Your task to perform on an android device: star an email in the gmail app Image 0: 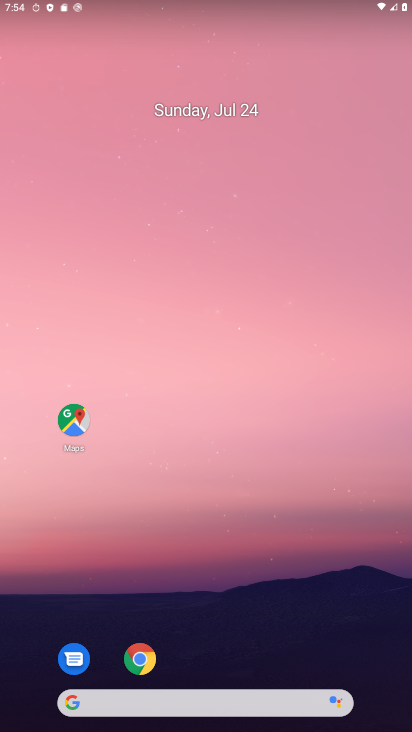
Step 0: drag from (250, 433) to (250, 110)
Your task to perform on an android device: star an email in the gmail app Image 1: 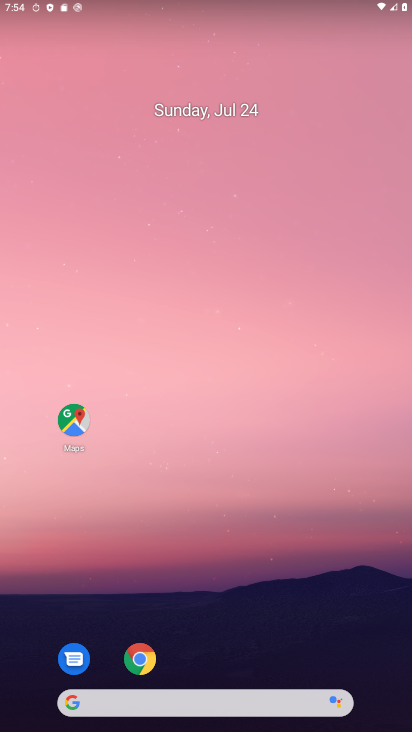
Step 1: drag from (192, 553) to (192, 45)
Your task to perform on an android device: star an email in the gmail app Image 2: 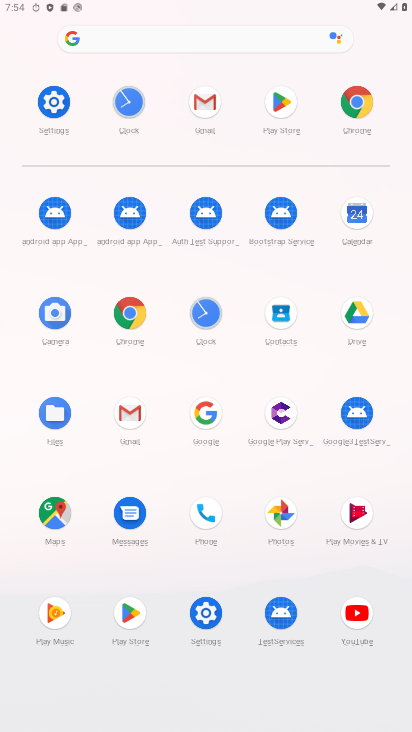
Step 2: click (128, 410)
Your task to perform on an android device: star an email in the gmail app Image 3: 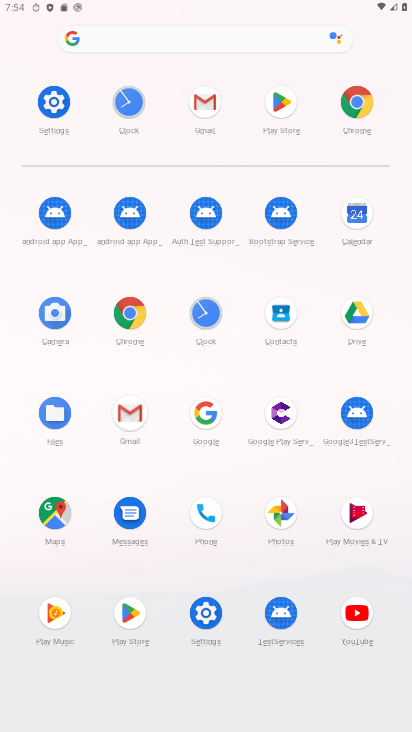
Step 3: click (128, 410)
Your task to perform on an android device: star an email in the gmail app Image 4: 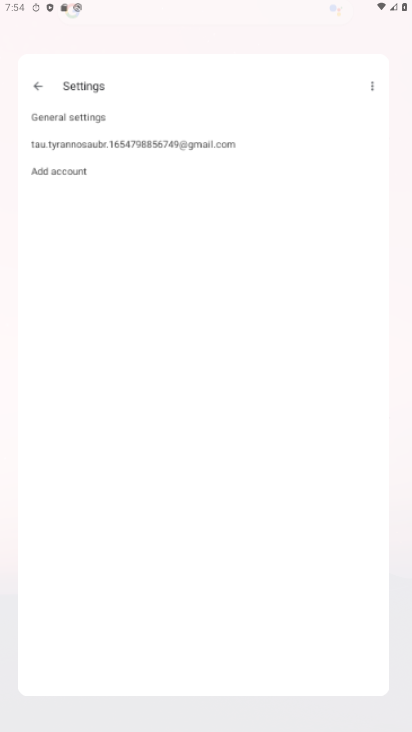
Step 4: click (128, 410)
Your task to perform on an android device: star an email in the gmail app Image 5: 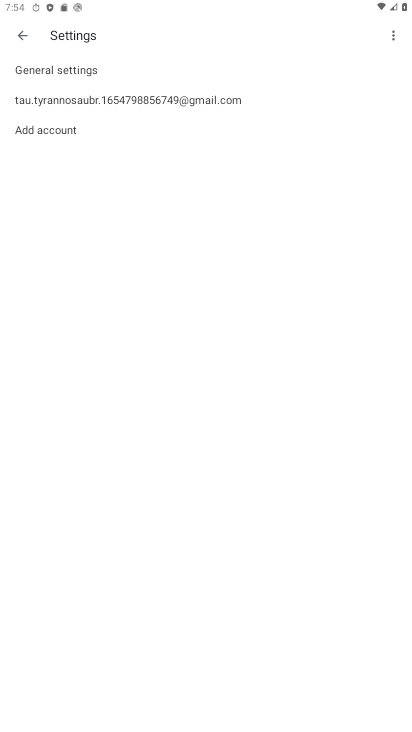
Step 5: click (75, 103)
Your task to perform on an android device: star an email in the gmail app Image 6: 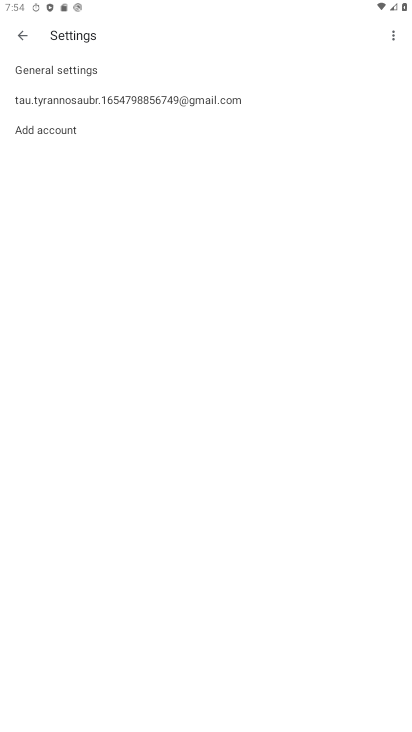
Step 6: click (22, 30)
Your task to perform on an android device: star an email in the gmail app Image 7: 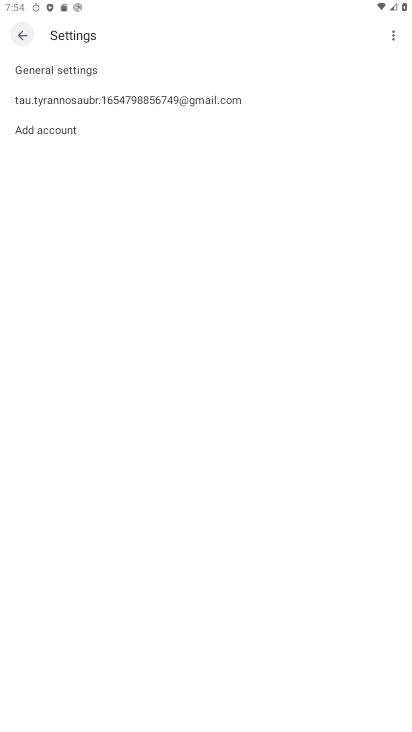
Step 7: click (22, 30)
Your task to perform on an android device: star an email in the gmail app Image 8: 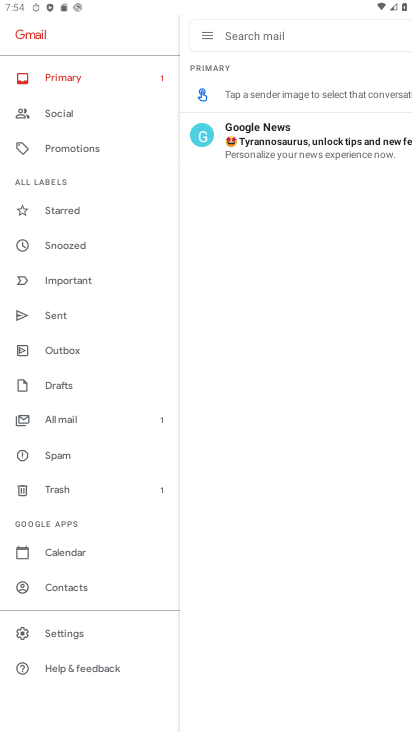
Step 8: click (297, 143)
Your task to perform on an android device: star an email in the gmail app Image 9: 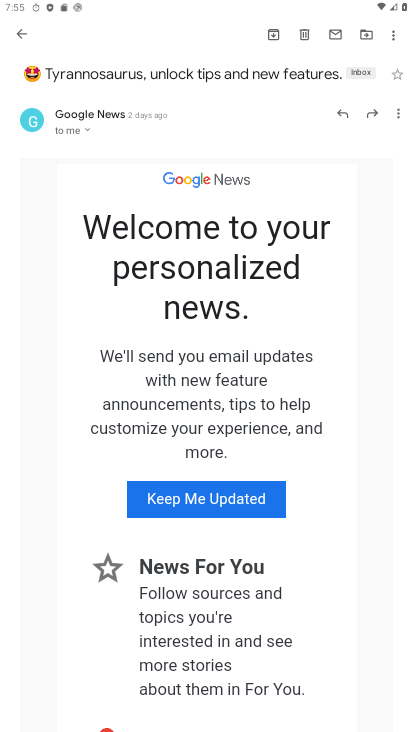
Step 9: drag from (256, 566) to (304, 121)
Your task to perform on an android device: star an email in the gmail app Image 10: 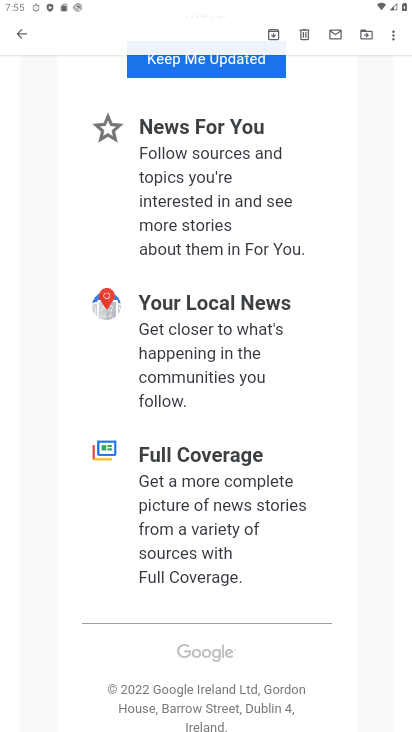
Step 10: click (110, 119)
Your task to perform on an android device: star an email in the gmail app Image 11: 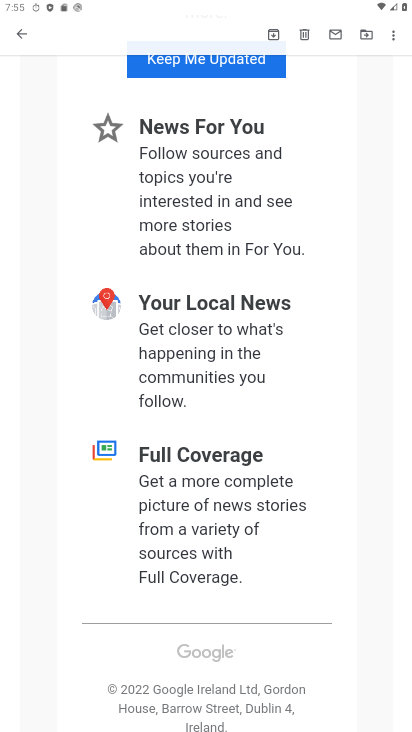
Step 11: click (111, 123)
Your task to perform on an android device: star an email in the gmail app Image 12: 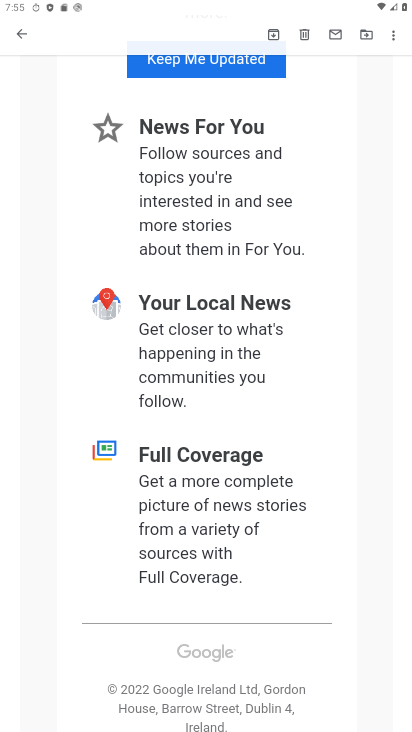
Step 12: click (111, 123)
Your task to perform on an android device: star an email in the gmail app Image 13: 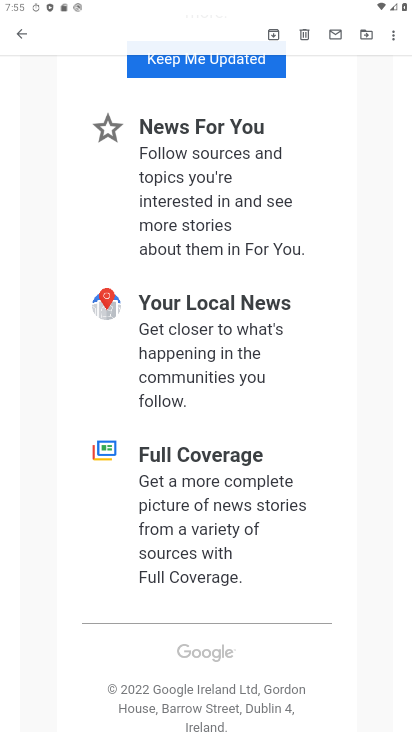
Step 13: press back button
Your task to perform on an android device: star an email in the gmail app Image 14: 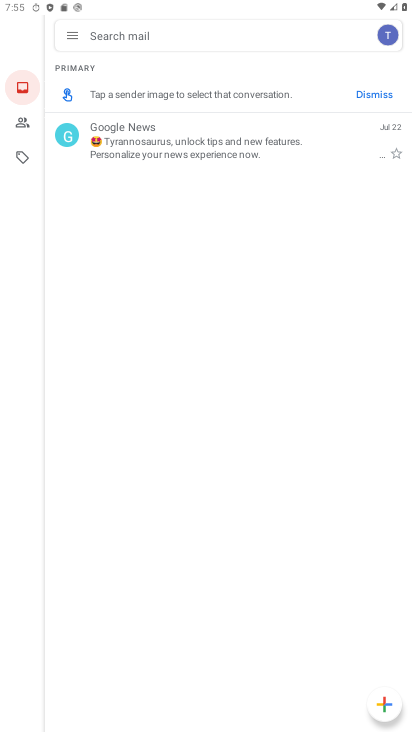
Step 14: click (396, 161)
Your task to perform on an android device: star an email in the gmail app Image 15: 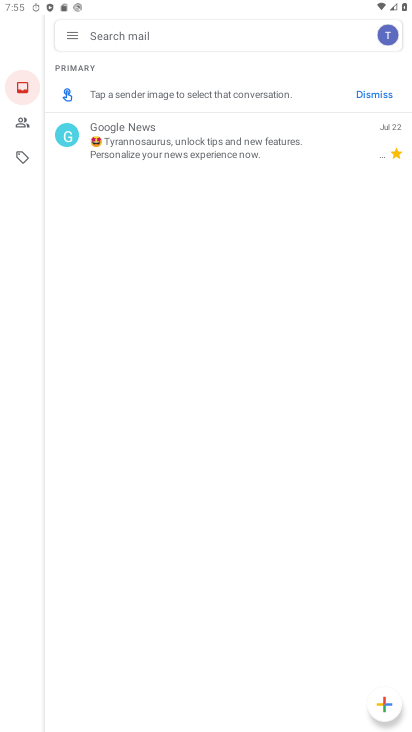
Step 15: task complete